Your task to perform on an android device: turn vacation reply on in the gmail app Image 0: 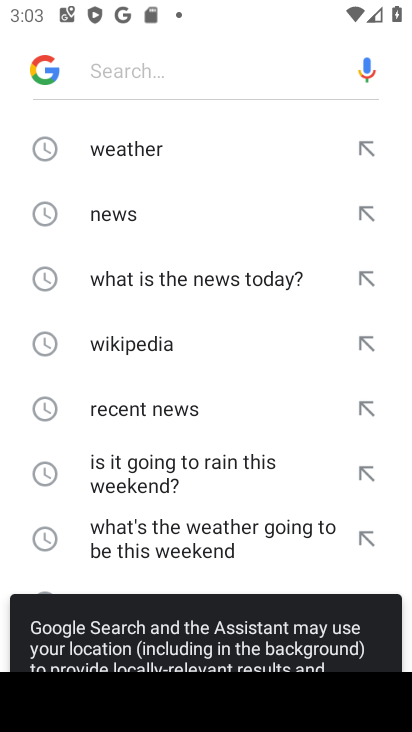
Step 0: press home button
Your task to perform on an android device: turn vacation reply on in the gmail app Image 1: 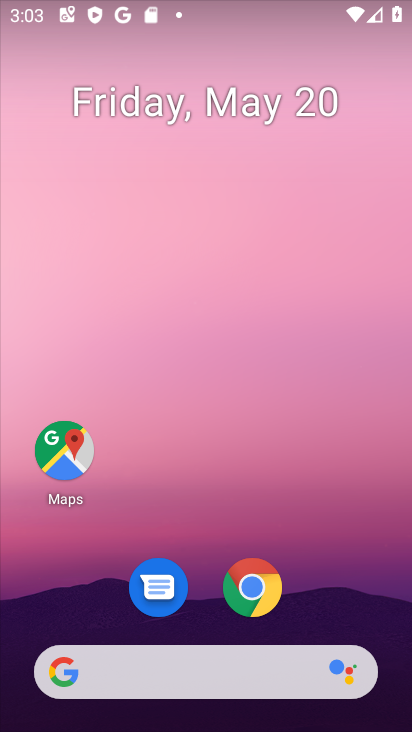
Step 1: drag from (170, 669) to (300, 145)
Your task to perform on an android device: turn vacation reply on in the gmail app Image 2: 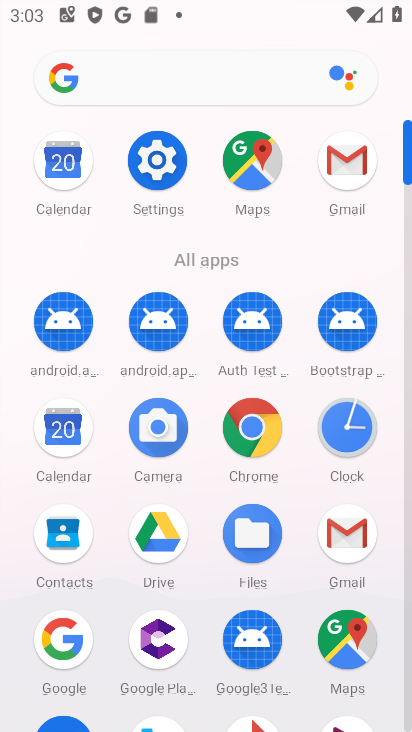
Step 2: click (342, 169)
Your task to perform on an android device: turn vacation reply on in the gmail app Image 3: 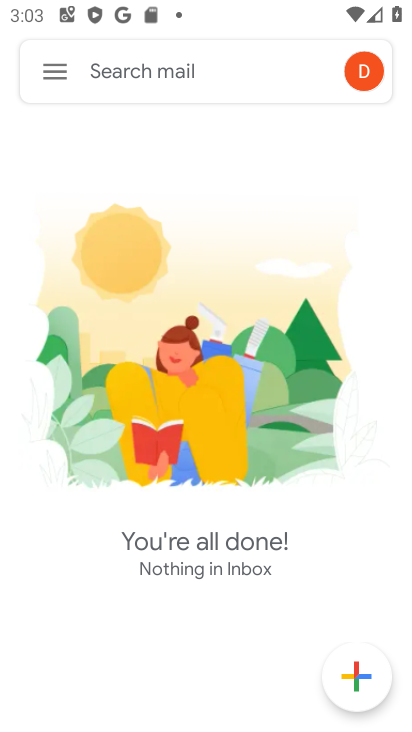
Step 3: click (55, 69)
Your task to perform on an android device: turn vacation reply on in the gmail app Image 4: 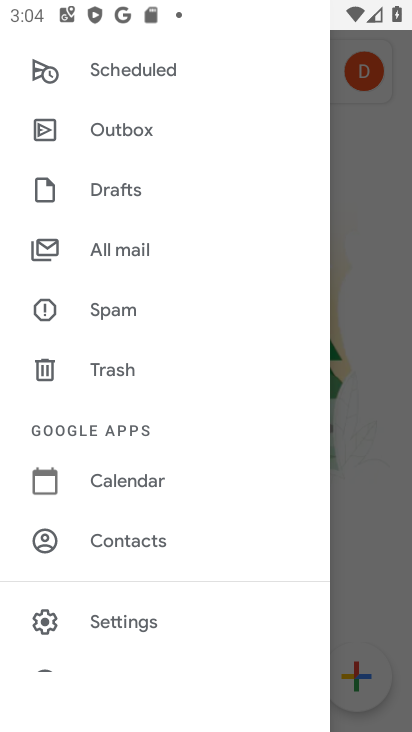
Step 4: click (120, 618)
Your task to perform on an android device: turn vacation reply on in the gmail app Image 5: 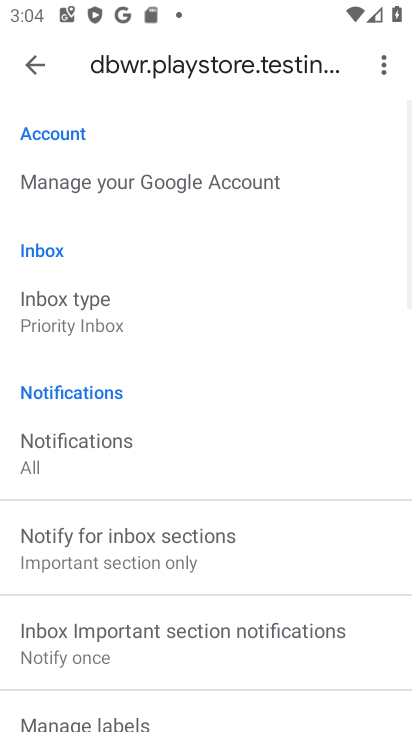
Step 5: drag from (131, 651) to (294, 153)
Your task to perform on an android device: turn vacation reply on in the gmail app Image 6: 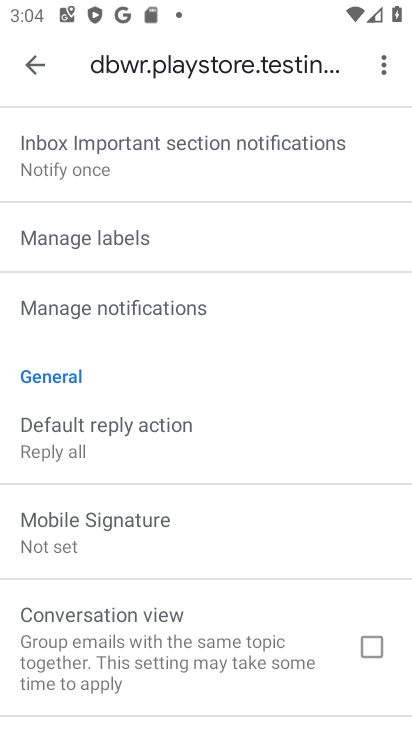
Step 6: drag from (211, 633) to (337, 214)
Your task to perform on an android device: turn vacation reply on in the gmail app Image 7: 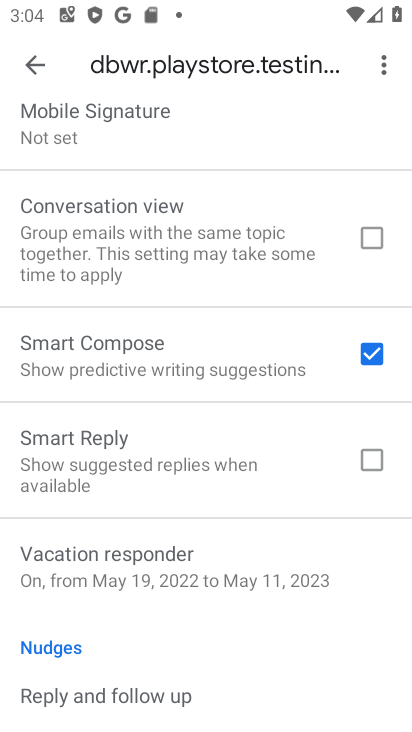
Step 7: drag from (182, 680) to (263, 190)
Your task to perform on an android device: turn vacation reply on in the gmail app Image 8: 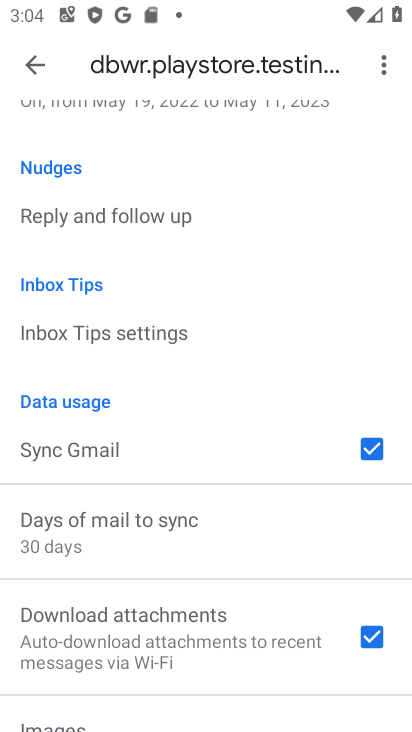
Step 8: drag from (299, 208) to (207, 570)
Your task to perform on an android device: turn vacation reply on in the gmail app Image 9: 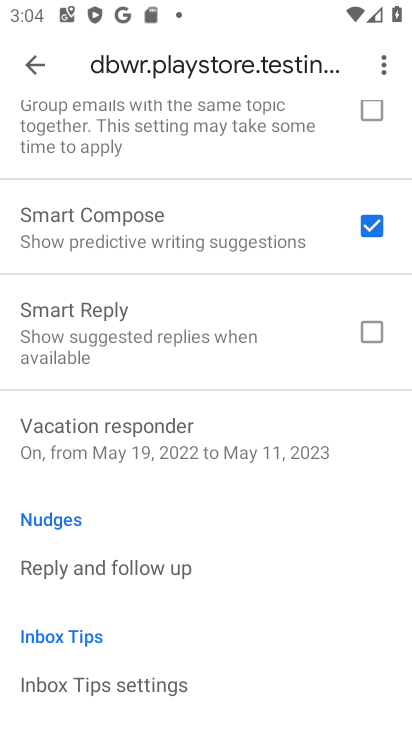
Step 9: click (125, 444)
Your task to perform on an android device: turn vacation reply on in the gmail app Image 10: 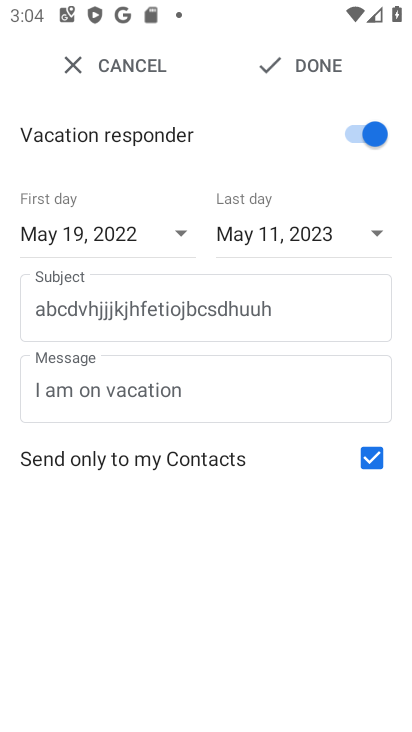
Step 10: task complete